Your task to perform on an android device: Open internet settings Image 0: 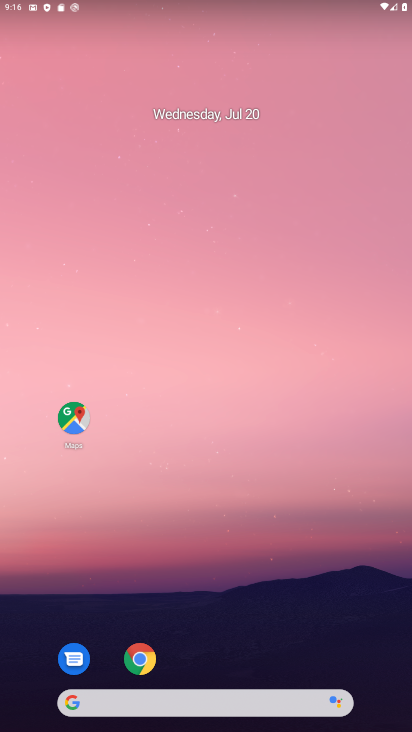
Step 0: drag from (247, 579) to (244, 305)
Your task to perform on an android device: Open internet settings Image 1: 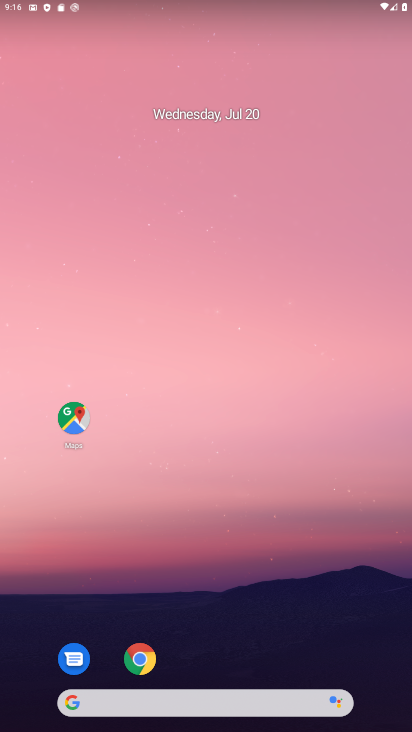
Step 1: drag from (279, 590) to (248, 119)
Your task to perform on an android device: Open internet settings Image 2: 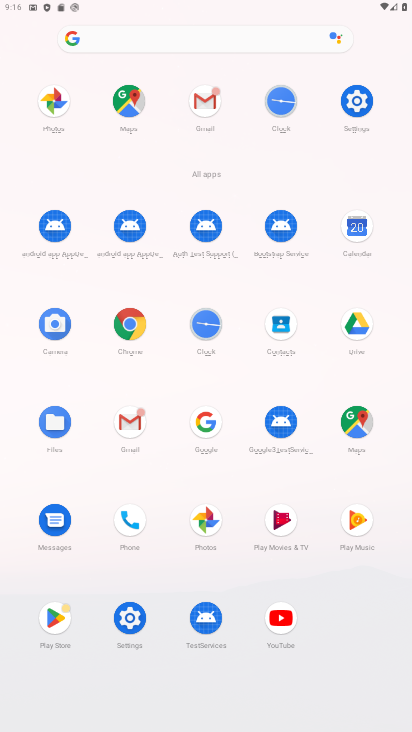
Step 2: click (361, 103)
Your task to perform on an android device: Open internet settings Image 3: 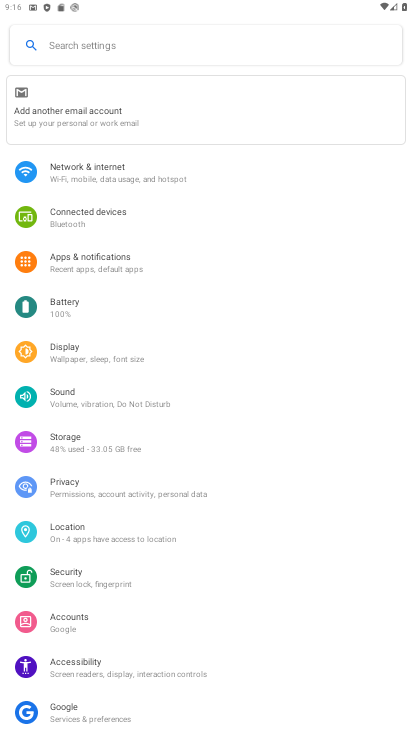
Step 3: click (104, 172)
Your task to perform on an android device: Open internet settings Image 4: 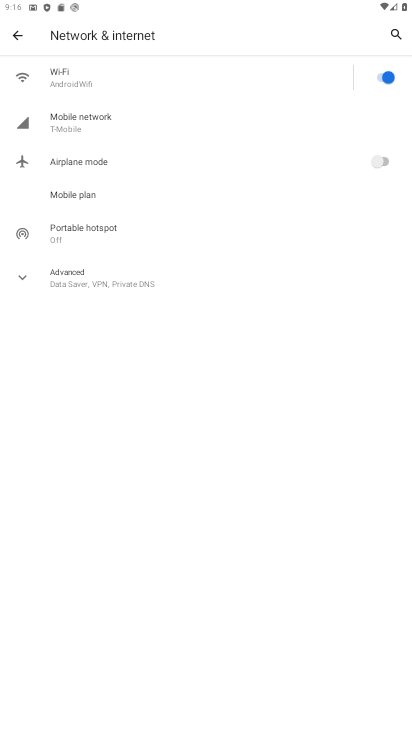
Step 4: task complete